Your task to perform on an android device: Go to Reddit.com Image 0: 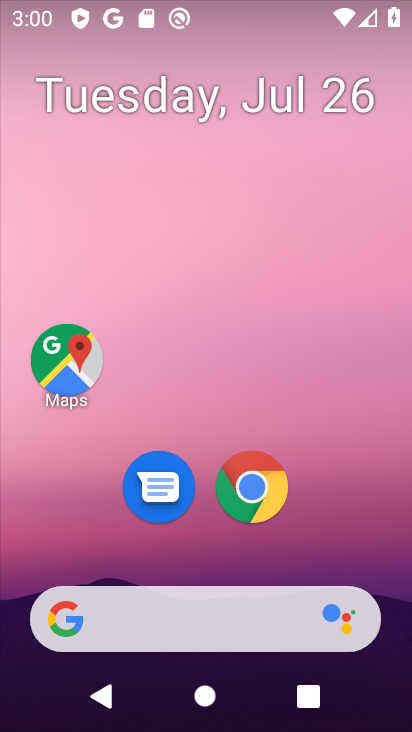
Step 0: click (258, 487)
Your task to perform on an android device: Go to Reddit.com Image 1: 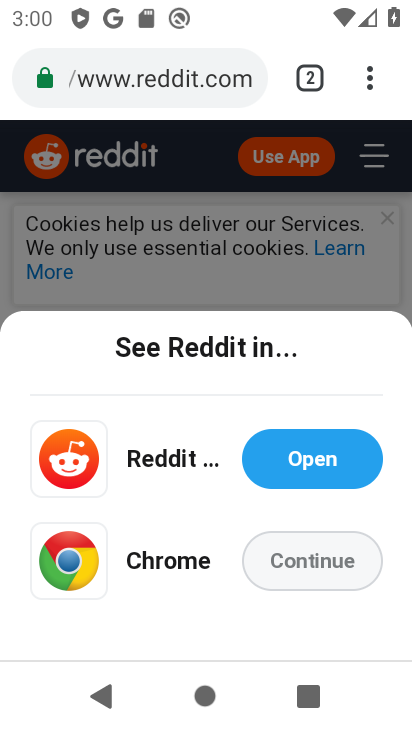
Step 1: task complete